Your task to perform on an android device: Do I have any events tomorrow? Image 0: 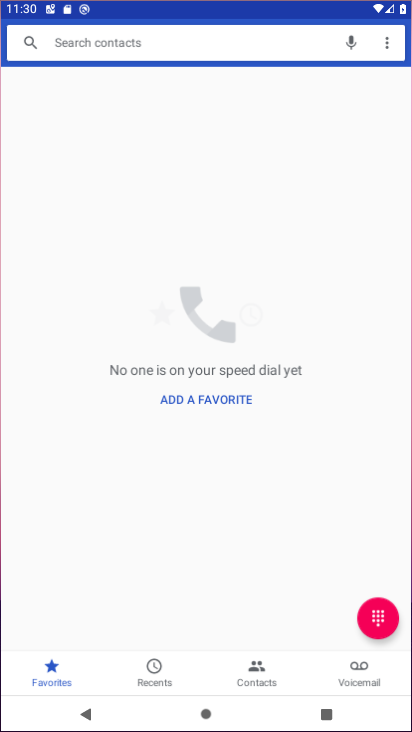
Step 0: drag from (393, 666) to (313, 205)
Your task to perform on an android device: Do I have any events tomorrow? Image 1: 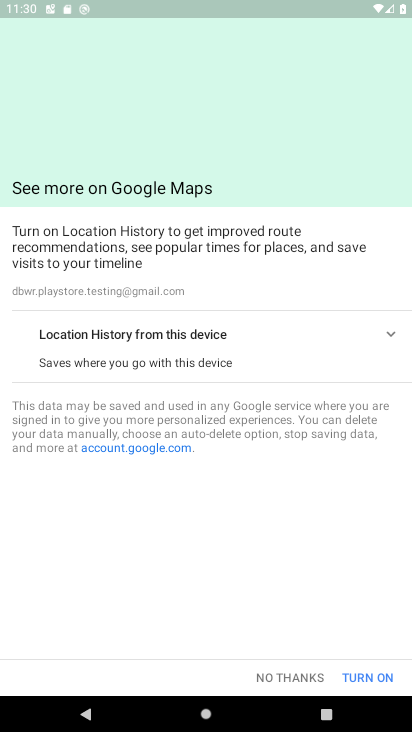
Step 1: press home button
Your task to perform on an android device: Do I have any events tomorrow? Image 2: 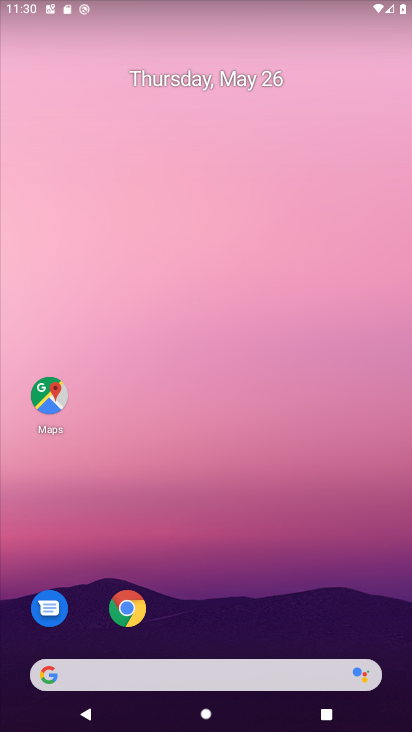
Step 2: drag from (393, 682) to (358, 256)
Your task to perform on an android device: Do I have any events tomorrow? Image 3: 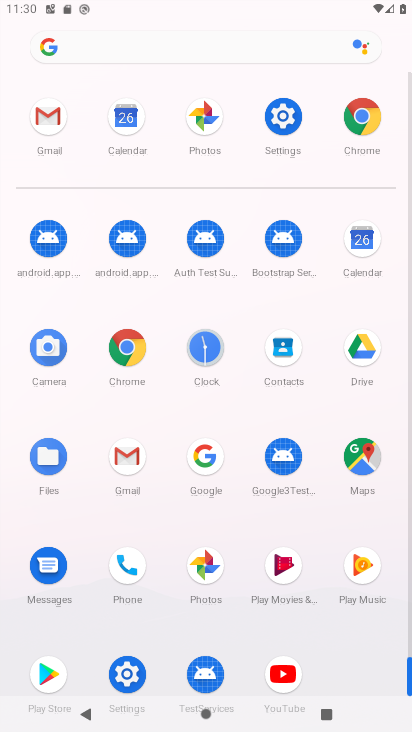
Step 3: click (354, 252)
Your task to perform on an android device: Do I have any events tomorrow? Image 4: 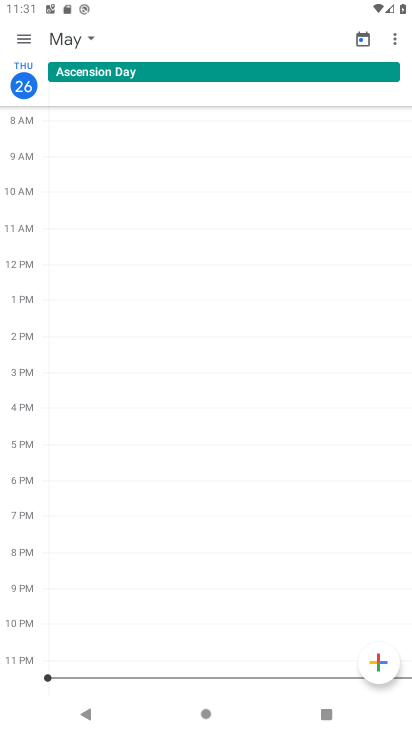
Step 4: click (84, 38)
Your task to perform on an android device: Do I have any events tomorrow? Image 5: 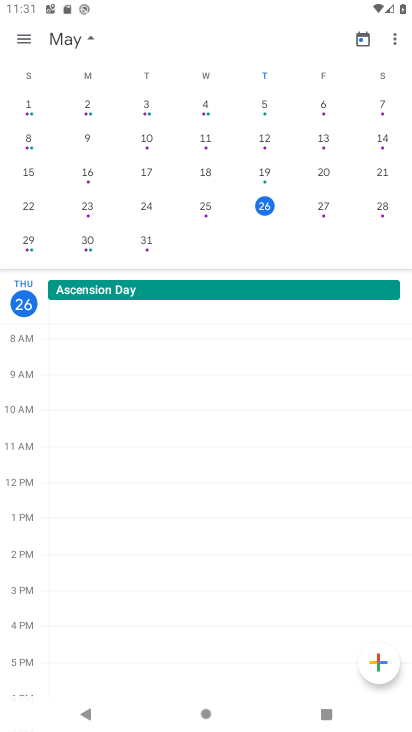
Step 5: click (320, 203)
Your task to perform on an android device: Do I have any events tomorrow? Image 6: 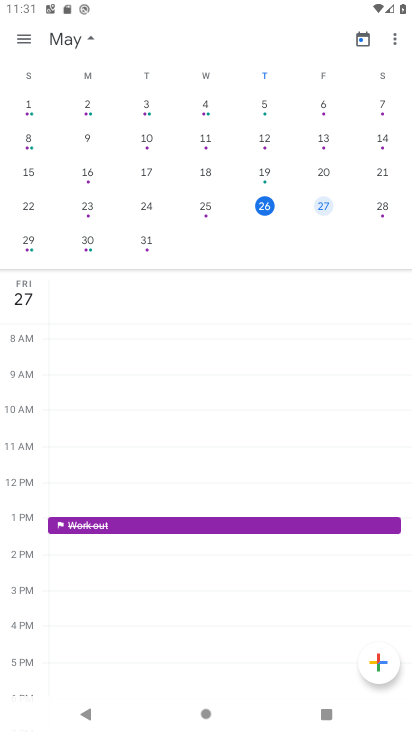
Step 6: click (19, 32)
Your task to perform on an android device: Do I have any events tomorrow? Image 7: 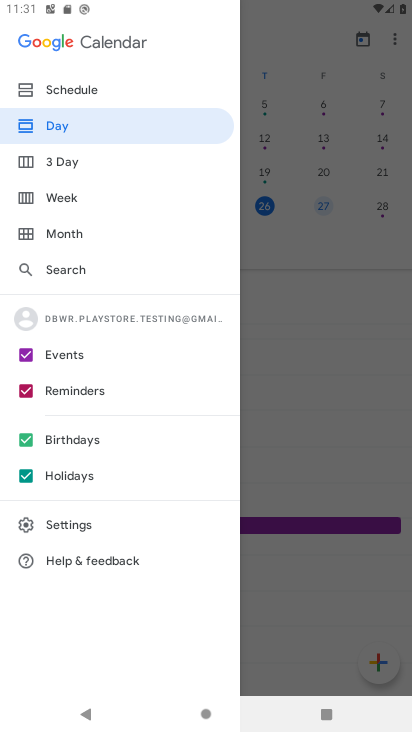
Step 7: click (26, 477)
Your task to perform on an android device: Do I have any events tomorrow? Image 8: 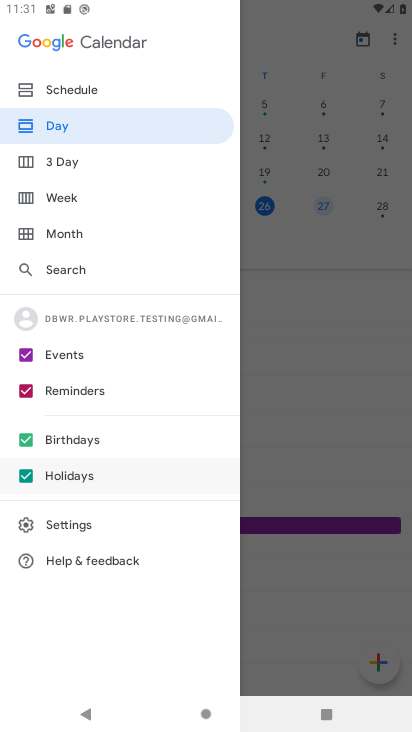
Step 8: click (24, 435)
Your task to perform on an android device: Do I have any events tomorrow? Image 9: 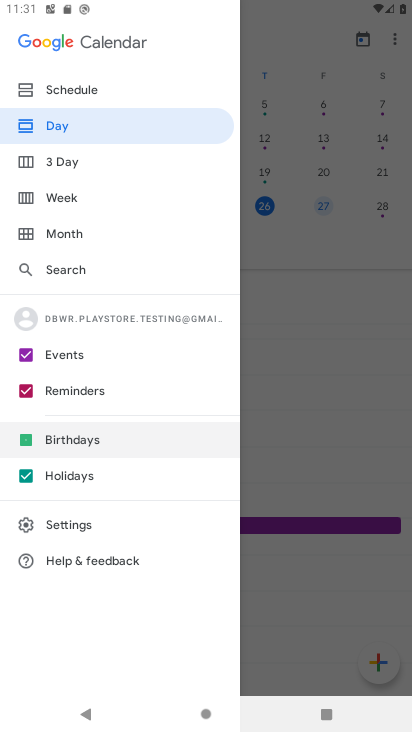
Step 9: click (26, 388)
Your task to perform on an android device: Do I have any events tomorrow? Image 10: 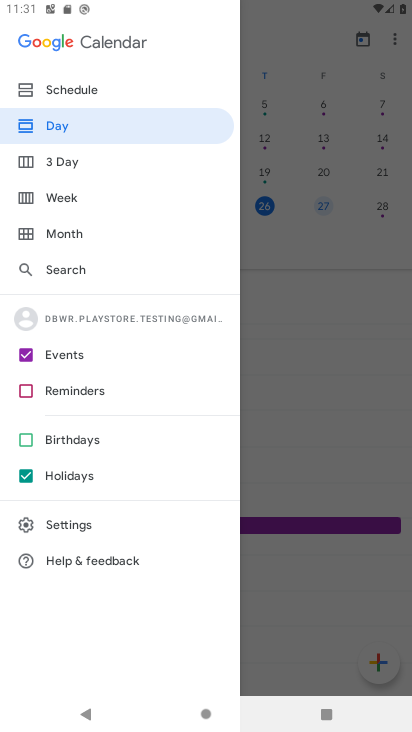
Step 10: click (68, 87)
Your task to perform on an android device: Do I have any events tomorrow? Image 11: 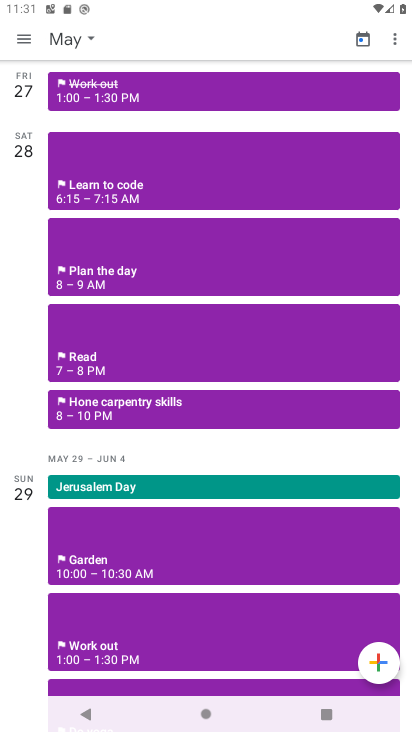
Step 11: click (24, 470)
Your task to perform on an android device: Do I have any events tomorrow? Image 12: 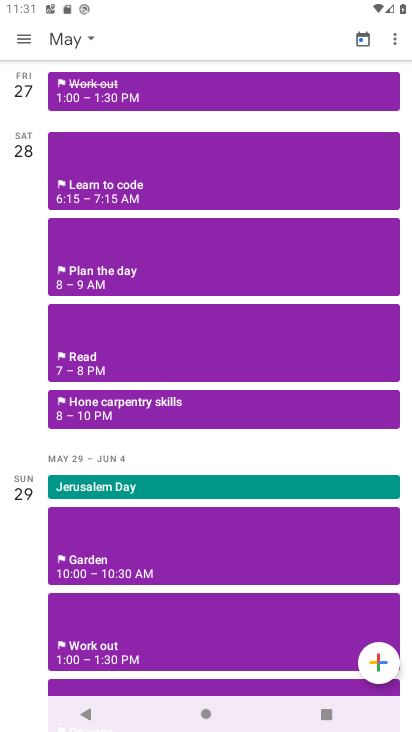
Step 12: click (89, 37)
Your task to perform on an android device: Do I have any events tomorrow? Image 13: 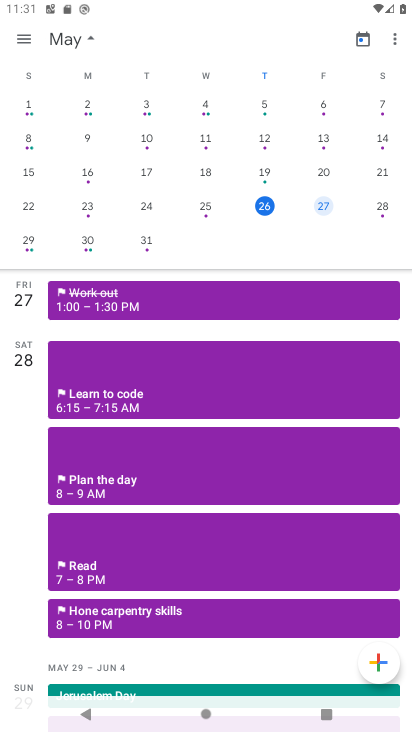
Step 13: click (323, 204)
Your task to perform on an android device: Do I have any events tomorrow? Image 14: 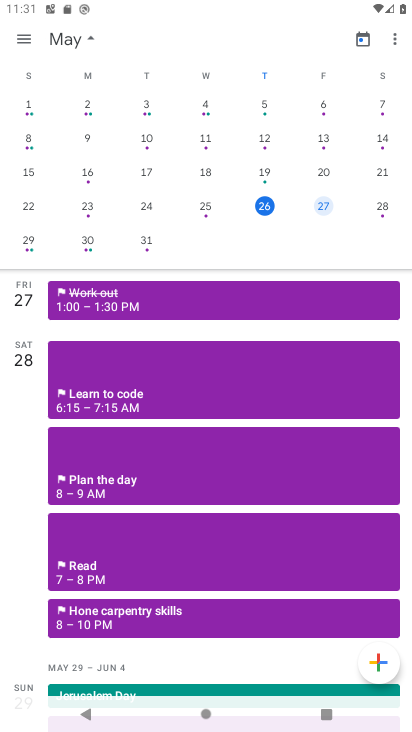
Step 14: task complete